Your task to perform on an android device: Open Chrome and go to settings Image 0: 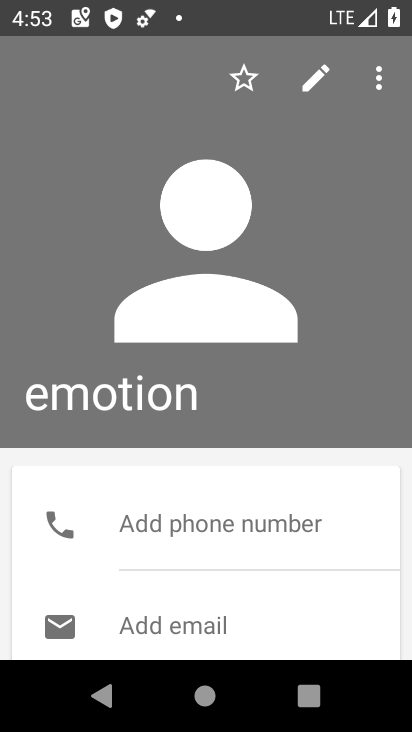
Step 0: press home button
Your task to perform on an android device: Open Chrome and go to settings Image 1: 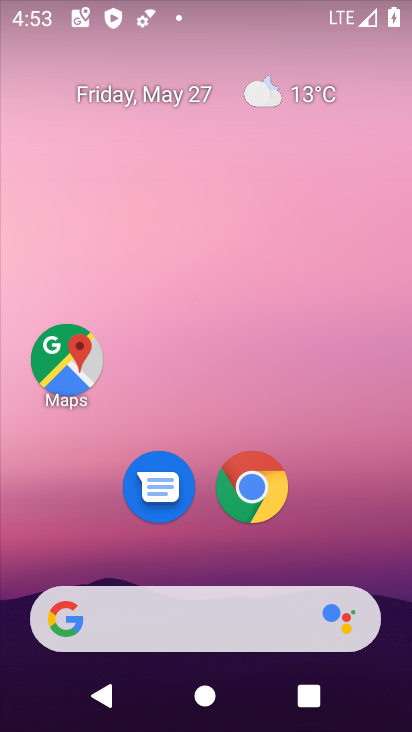
Step 1: click (245, 489)
Your task to perform on an android device: Open Chrome and go to settings Image 2: 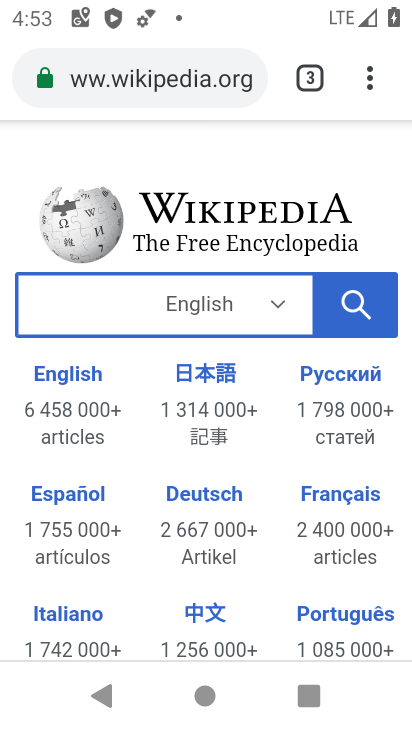
Step 2: task complete